Your task to perform on an android device: open the mobile data screen to see how much data has been used Image 0: 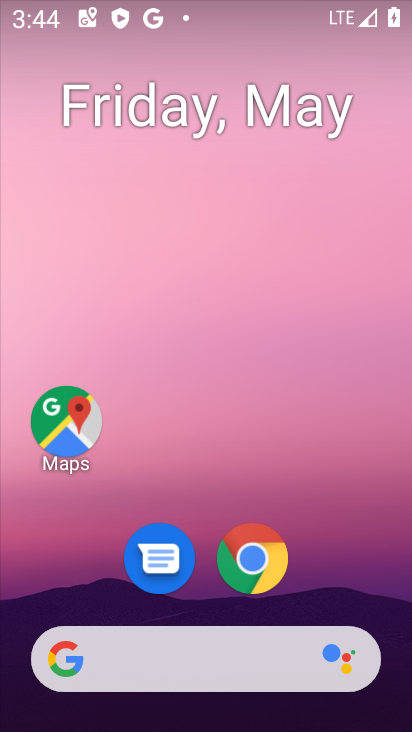
Step 0: press home button
Your task to perform on an android device: open the mobile data screen to see how much data has been used Image 1: 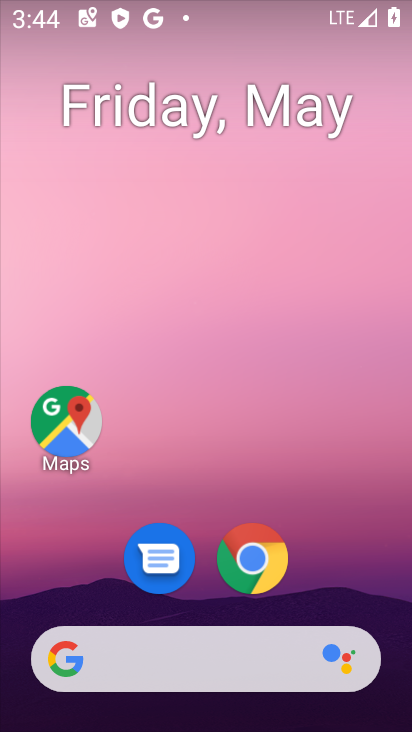
Step 1: drag from (214, 665) to (289, 250)
Your task to perform on an android device: open the mobile data screen to see how much data has been used Image 2: 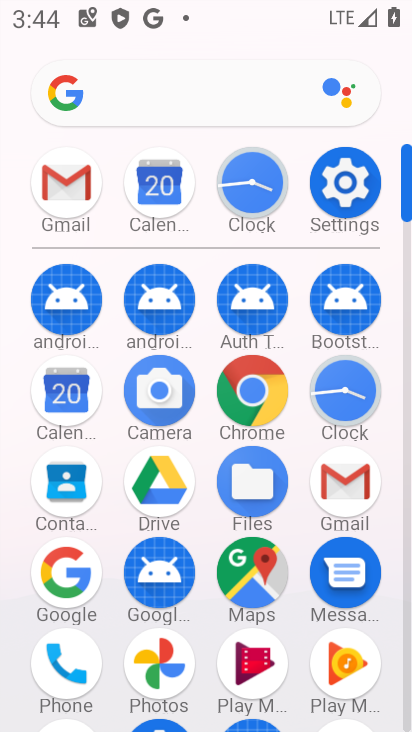
Step 2: click (350, 194)
Your task to perform on an android device: open the mobile data screen to see how much data has been used Image 3: 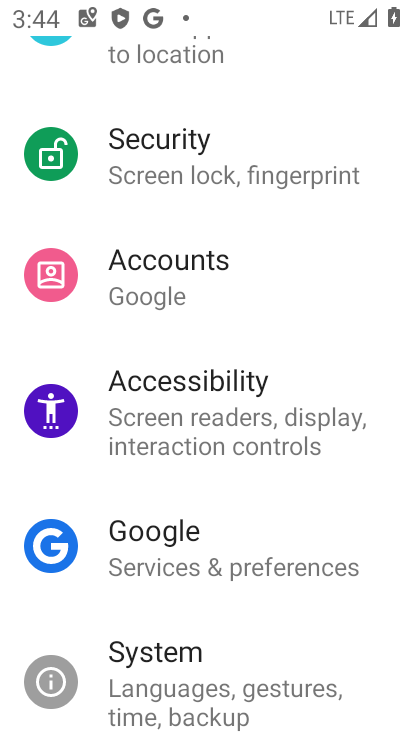
Step 3: drag from (314, 111) to (200, 548)
Your task to perform on an android device: open the mobile data screen to see how much data has been used Image 4: 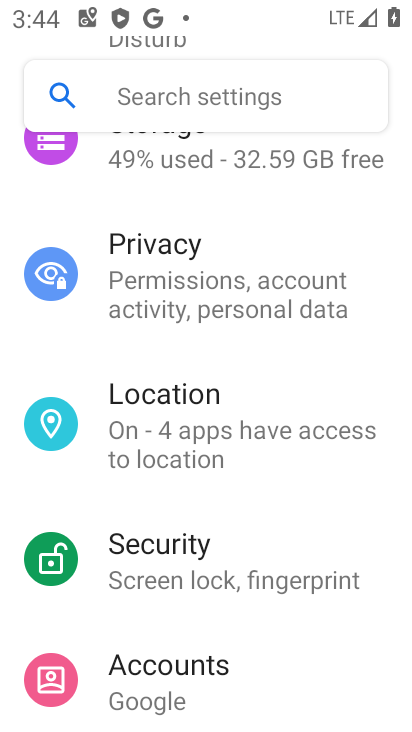
Step 4: drag from (321, 209) to (248, 564)
Your task to perform on an android device: open the mobile data screen to see how much data has been used Image 5: 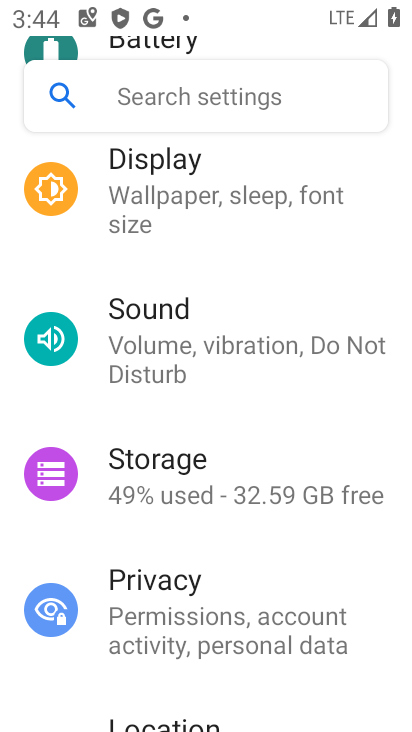
Step 5: drag from (320, 158) to (291, 555)
Your task to perform on an android device: open the mobile data screen to see how much data has been used Image 6: 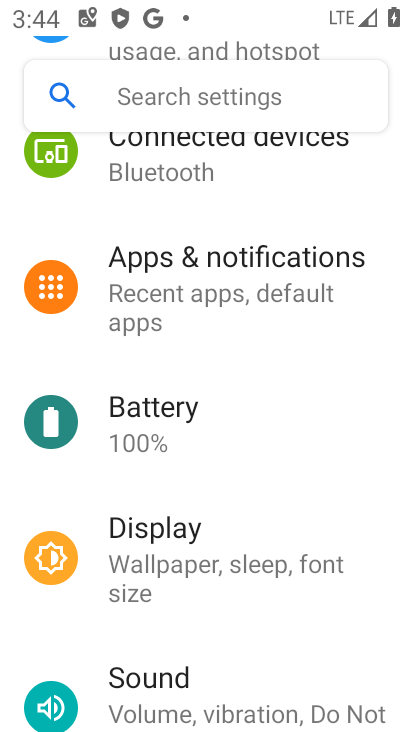
Step 6: drag from (294, 194) to (269, 595)
Your task to perform on an android device: open the mobile data screen to see how much data has been used Image 7: 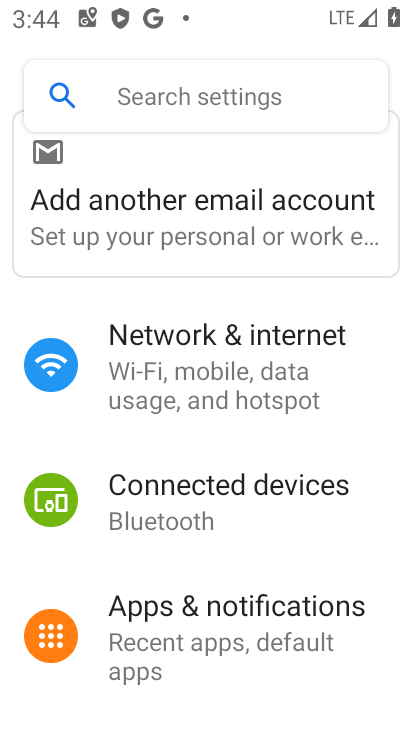
Step 7: click (204, 341)
Your task to perform on an android device: open the mobile data screen to see how much data has been used Image 8: 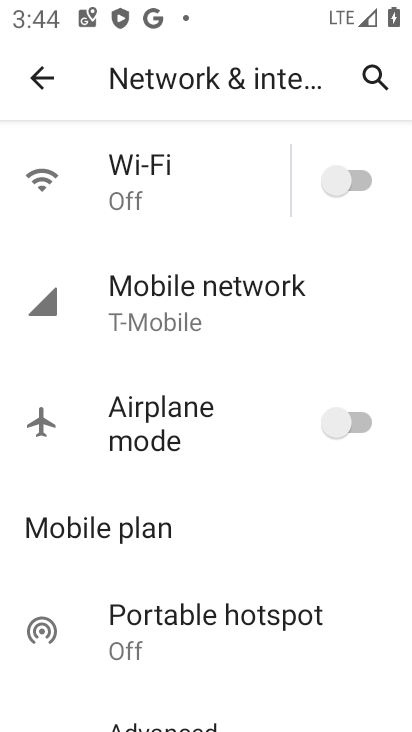
Step 8: click (194, 309)
Your task to perform on an android device: open the mobile data screen to see how much data has been used Image 9: 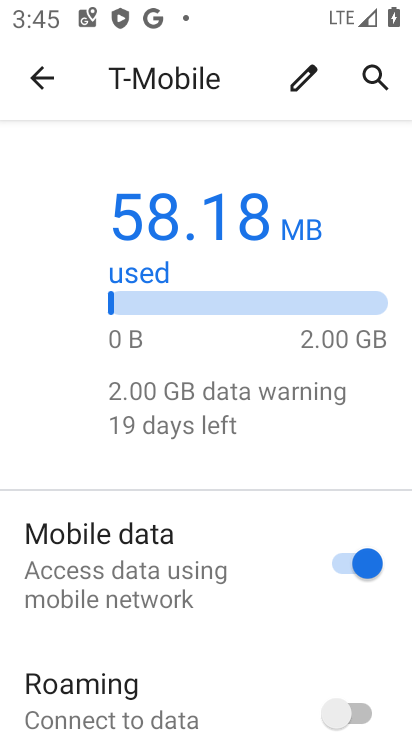
Step 9: task complete